Your task to perform on an android device: Go to network settings Image 0: 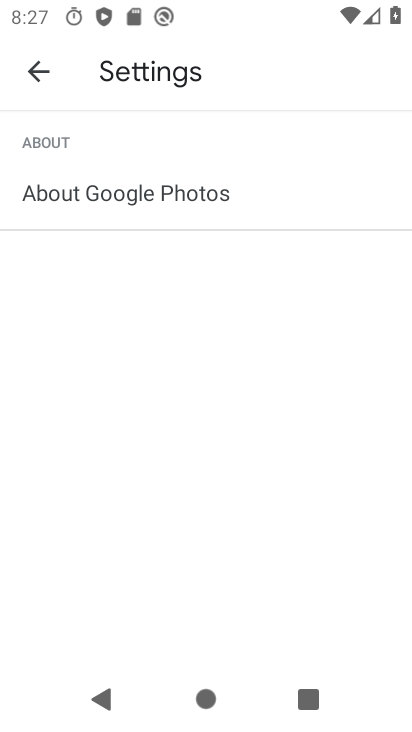
Step 0: press home button
Your task to perform on an android device: Go to network settings Image 1: 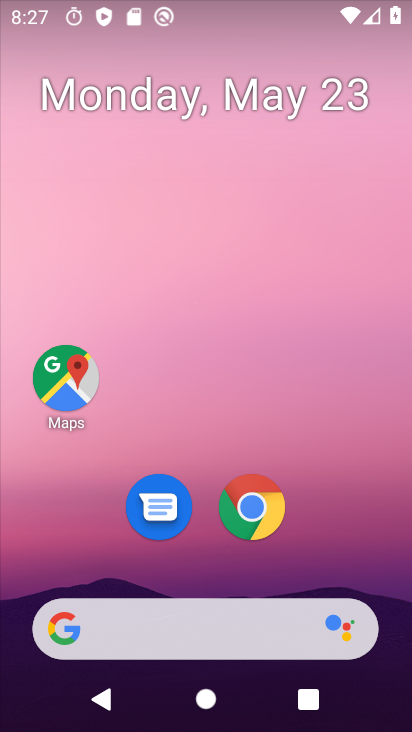
Step 1: drag from (314, 529) to (341, 17)
Your task to perform on an android device: Go to network settings Image 2: 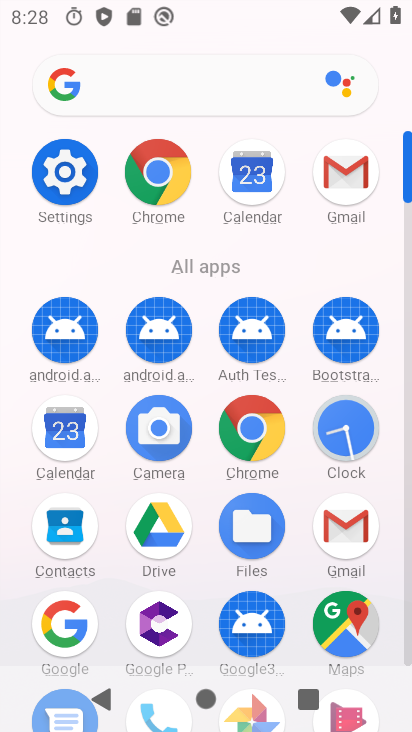
Step 2: click (46, 186)
Your task to perform on an android device: Go to network settings Image 3: 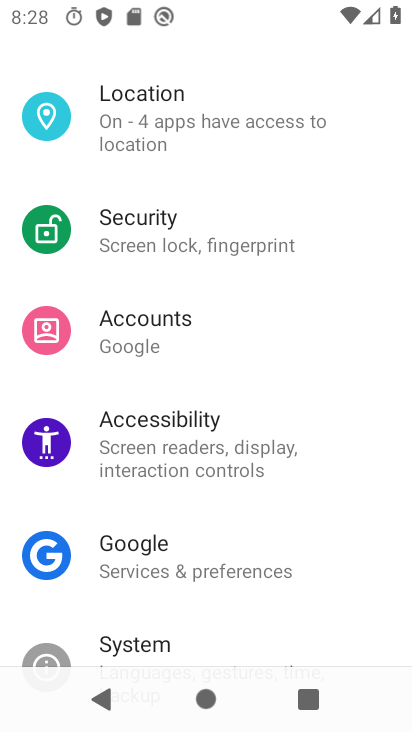
Step 3: drag from (171, 283) to (229, 604)
Your task to perform on an android device: Go to network settings Image 4: 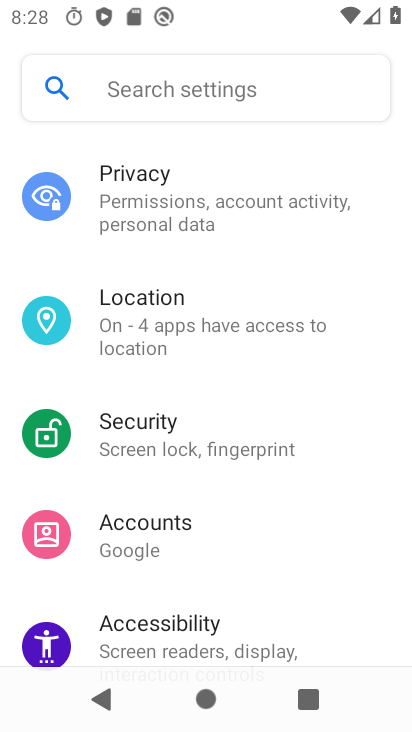
Step 4: drag from (218, 137) to (269, 574)
Your task to perform on an android device: Go to network settings Image 5: 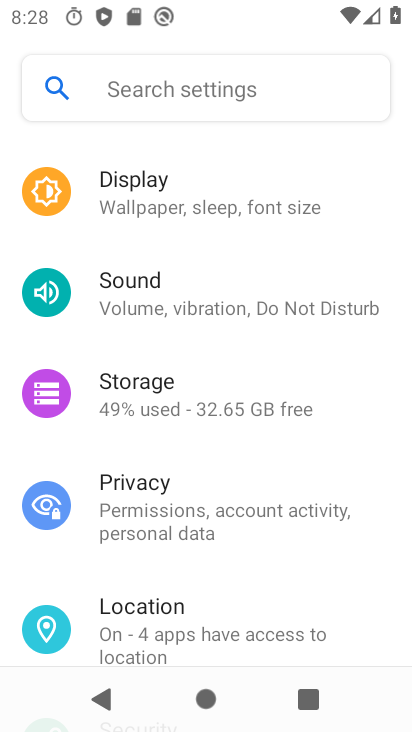
Step 5: drag from (186, 164) to (232, 558)
Your task to perform on an android device: Go to network settings Image 6: 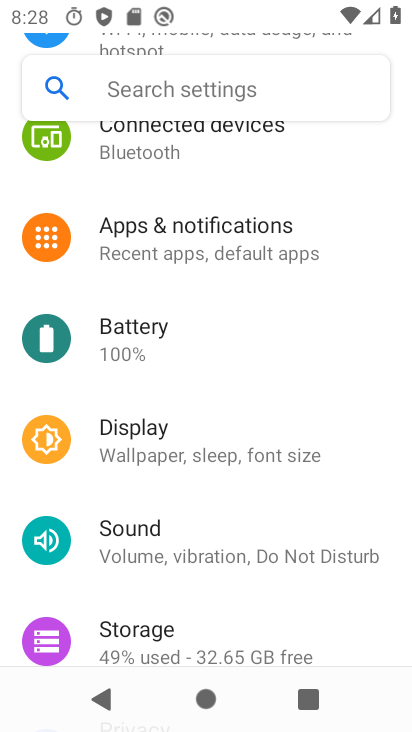
Step 6: drag from (208, 176) to (280, 615)
Your task to perform on an android device: Go to network settings Image 7: 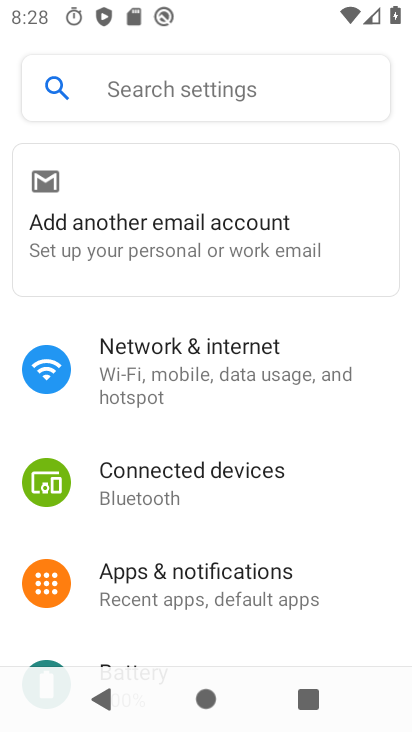
Step 7: click (175, 366)
Your task to perform on an android device: Go to network settings Image 8: 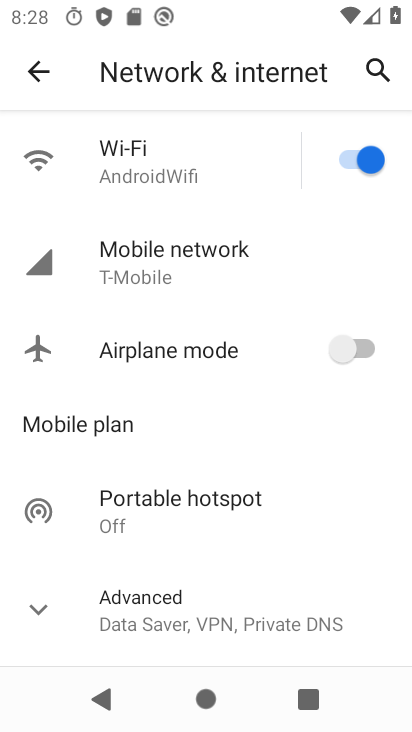
Step 8: task complete